Your task to perform on an android device: Go to network settings Image 0: 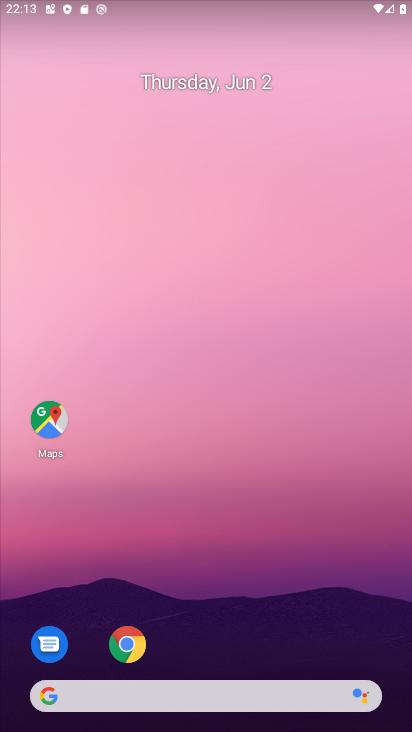
Step 0: drag from (194, 653) to (161, 288)
Your task to perform on an android device: Go to network settings Image 1: 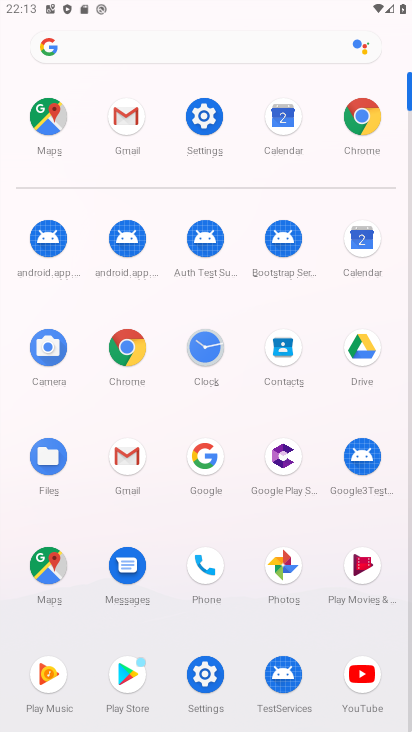
Step 1: click (200, 126)
Your task to perform on an android device: Go to network settings Image 2: 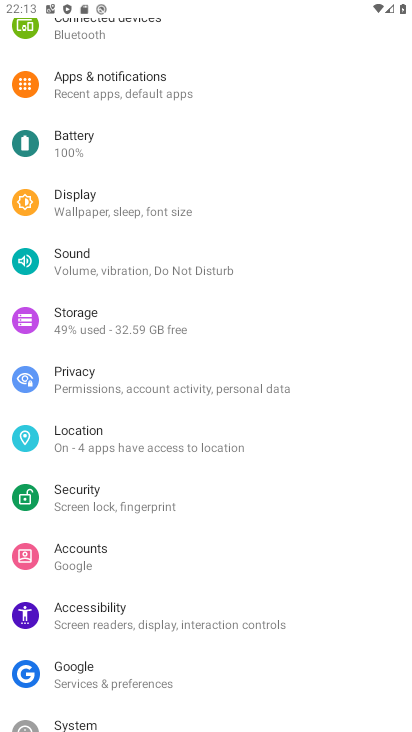
Step 2: drag from (159, 150) to (130, 398)
Your task to perform on an android device: Go to network settings Image 3: 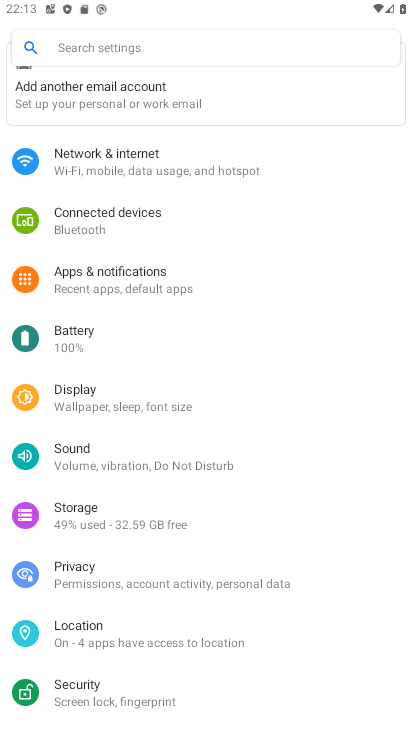
Step 3: click (124, 160)
Your task to perform on an android device: Go to network settings Image 4: 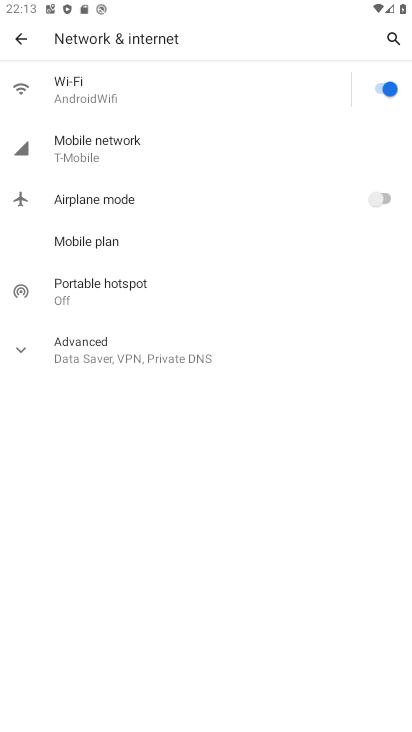
Step 4: task complete